Your task to perform on an android device: check android version Image 0: 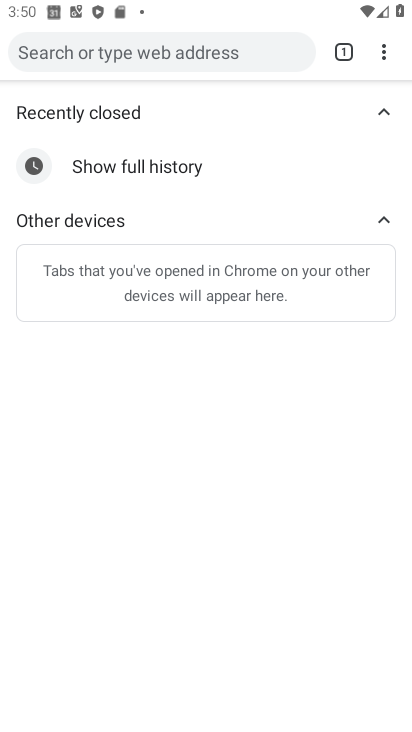
Step 0: press home button
Your task to perform on an android device: check android version Image 1: 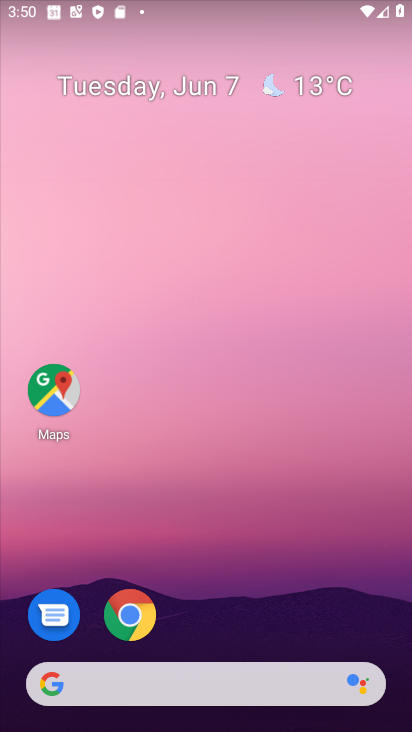
Step 1: drag from (241, 616) to (246, 271)
Your task to perform on an android device: check android version Image 2: 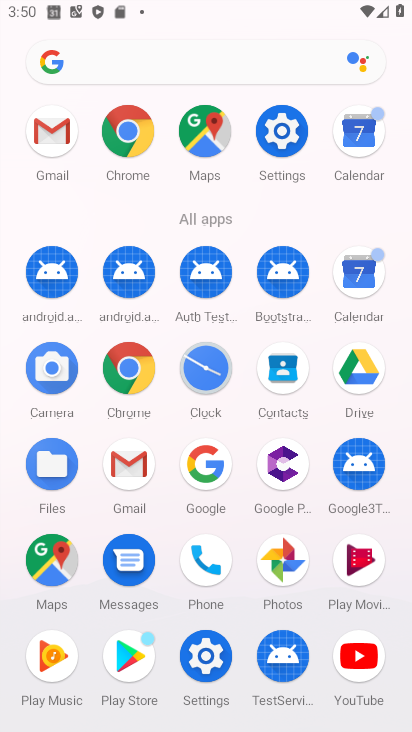
Step 2: click (205, 653)
Your task to perform on an android device: check android version Image 3: 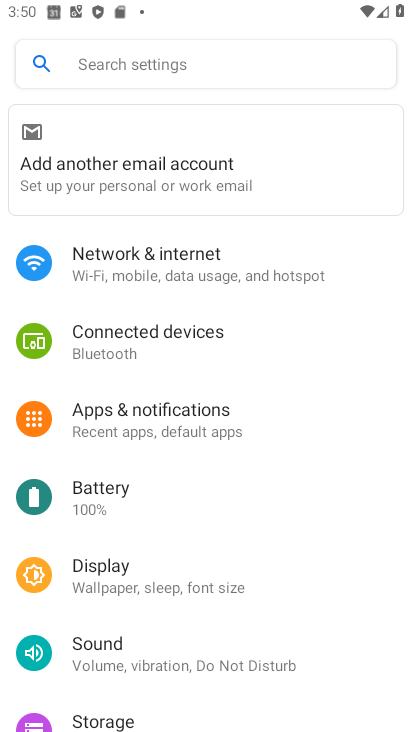
Step 3: drag from (161, 595) to (213, 256)
Your task to perform on an android device: check android version Image 4: 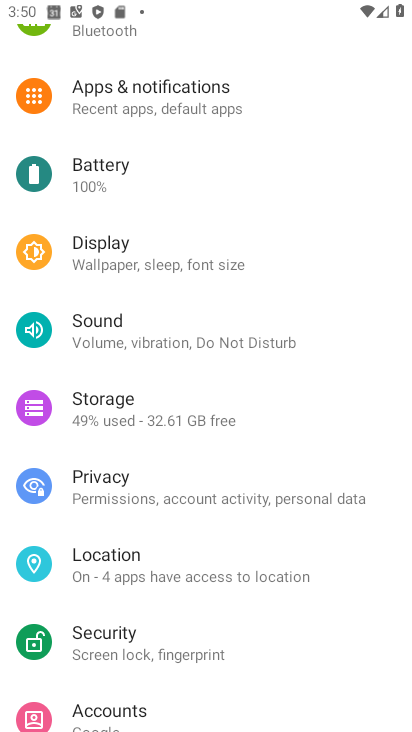
Step 4: drag from (157, 596) to (203, 246)
Your task to perform on an android device: check android version Image 5: 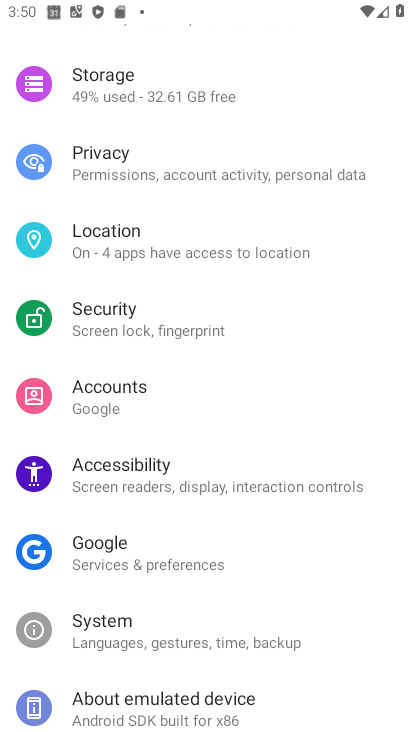
Step 5: drag from (197, 541) to (223, 282)
Your task to perform on an android device: check android version Image 6: 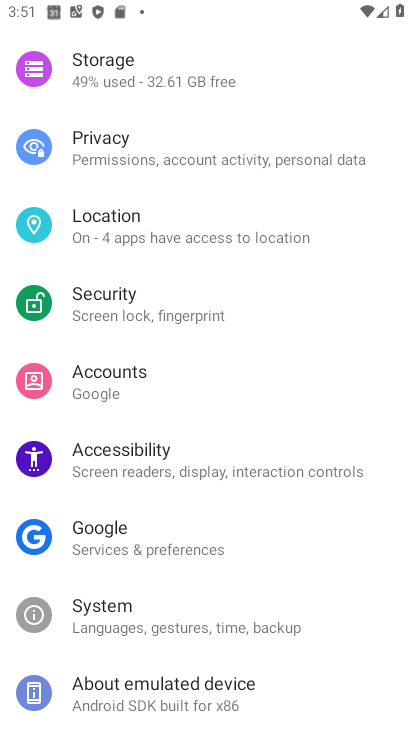
Step 6: click (158, 688)
Your task to perform on an android device: check android version Image 7: 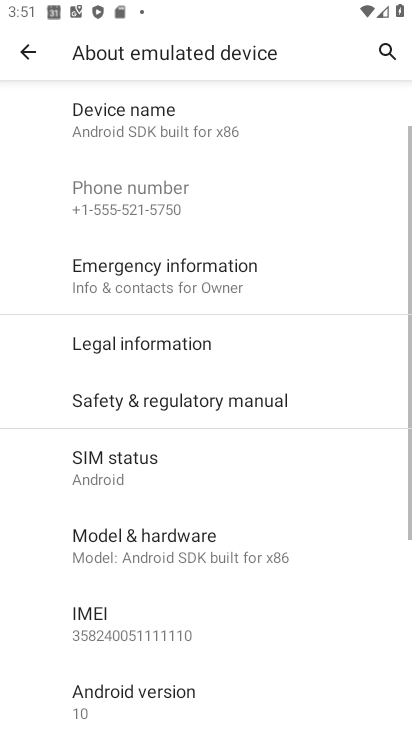
Step 7: click (164, 699)
Your task to perform on an android device: check android version Image 8: 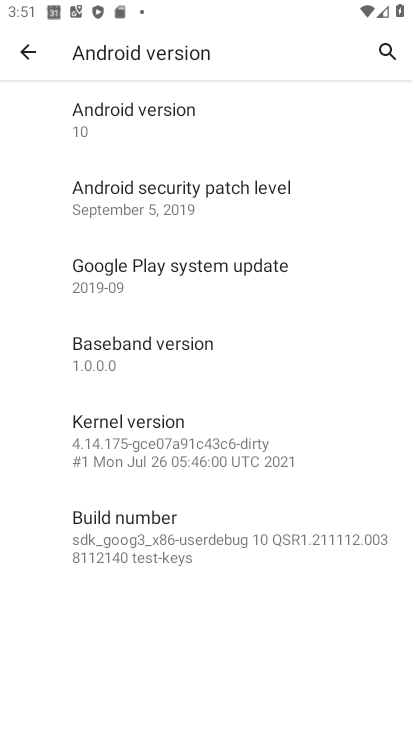
Step 8: click (157, 125)
Your task to perform on an android device: check android version Image 9: 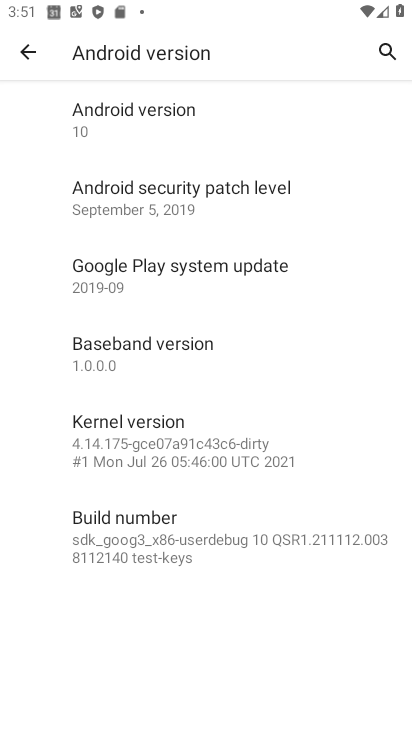
Step 9: task complete